Your task to perform on an android device: Open notification settings Image 0: 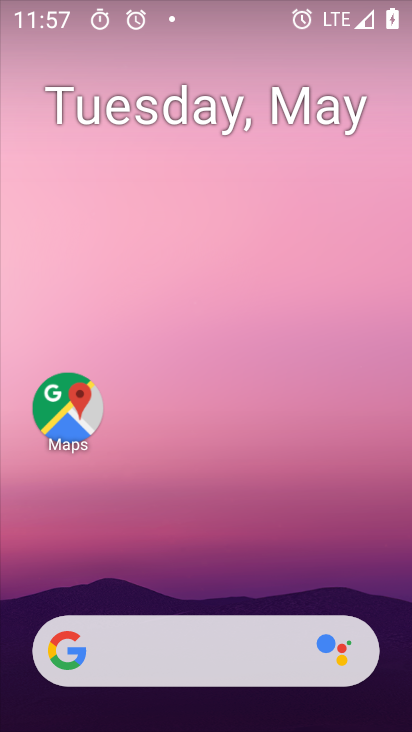
Step 0: drag from (196, 630) to (206, 4)
Your task to perform on an android device: Open notification settings Image 1: 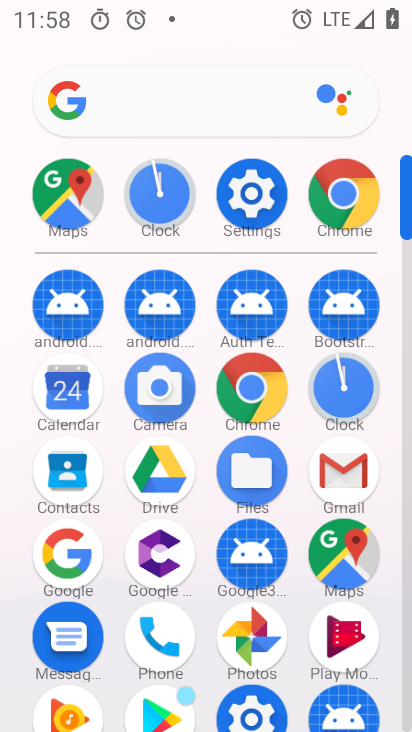
Step 1: click (253, 181)
Your task to perform on an android device: Open notification settings Image 2: 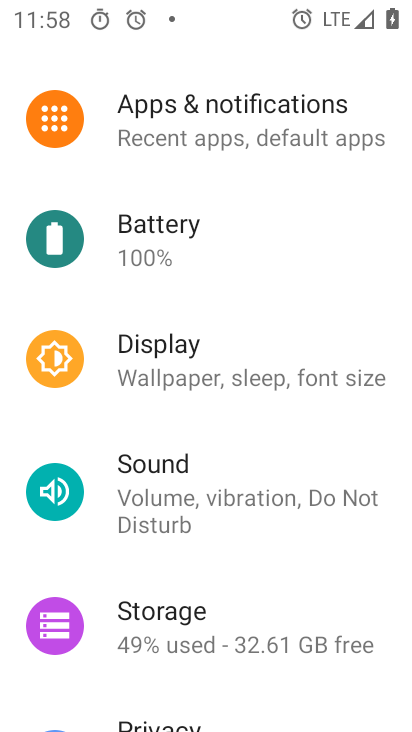
Step 2: click (210, 133)
Your task to perform on an android device: Open notification settings Image 3: 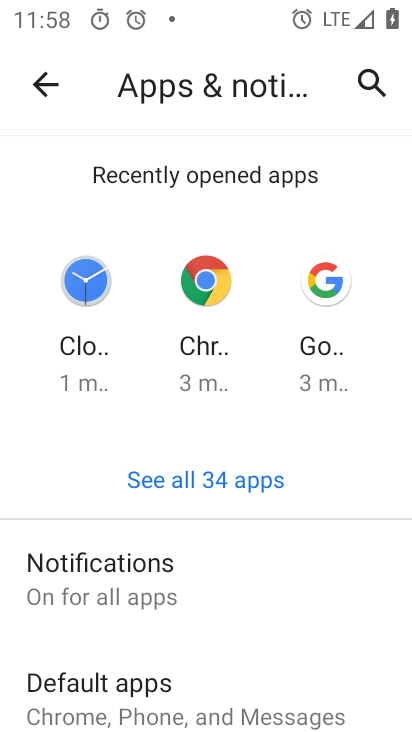
Step 3: task complete